Your task to perform on an android device: What's the weather going to be this weekend? Image 0: 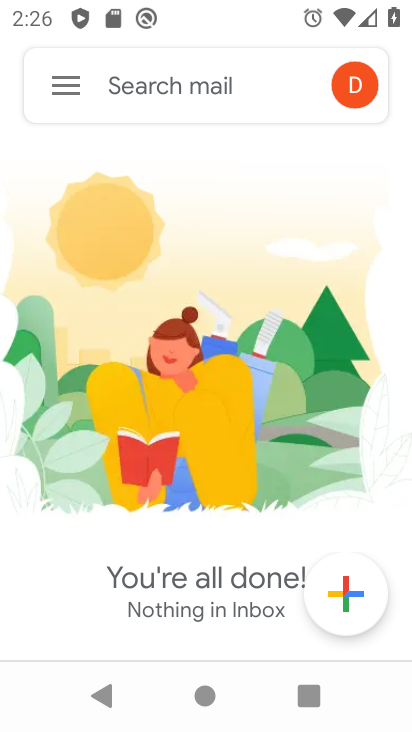
Step 0: press home button
Your task to perform on an android device: What's the weather going to be this weekend? Image 1: 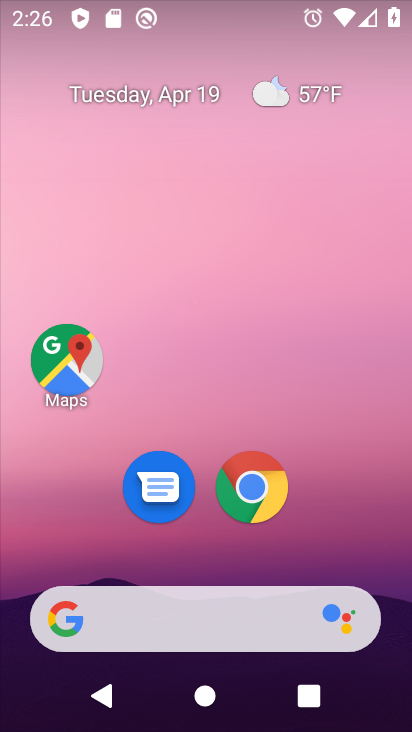
Step 1: click (55, 615)
Your task to perform on an android device: What's the weather going to be this weekend? Image 2: 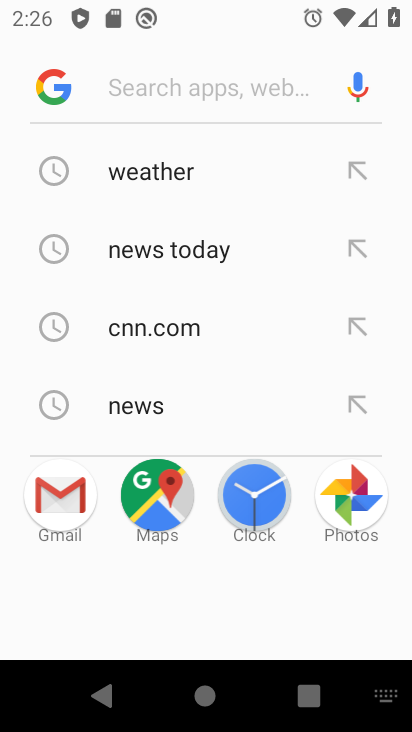
Step 2: click (55, 101)
Your task to perform on an android device: What's the weather going to be this weekend? Image 3: 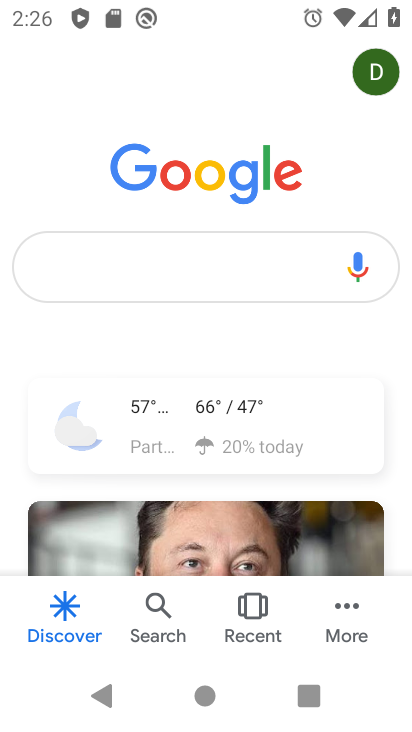
Step 3: click (204, 444)
Your task to perform on an android device: What's the weather going to be this weekend? Image 4: 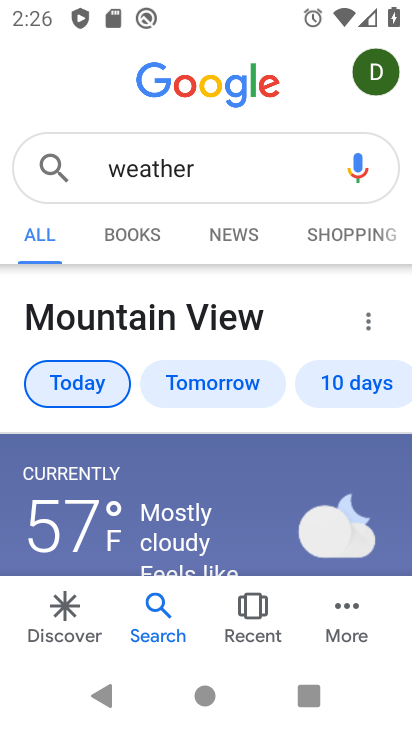
Step 4: click (374, 375)
Your task to perform on an android device: What's the weather going to be this weekend? Image 5: 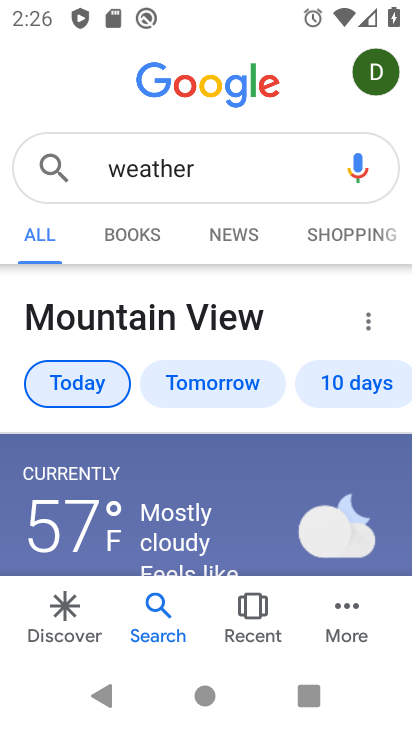
Step 5: click (374, 375)
Your task to perform on an android device: What's the weather going to be this weekend? Image 6: 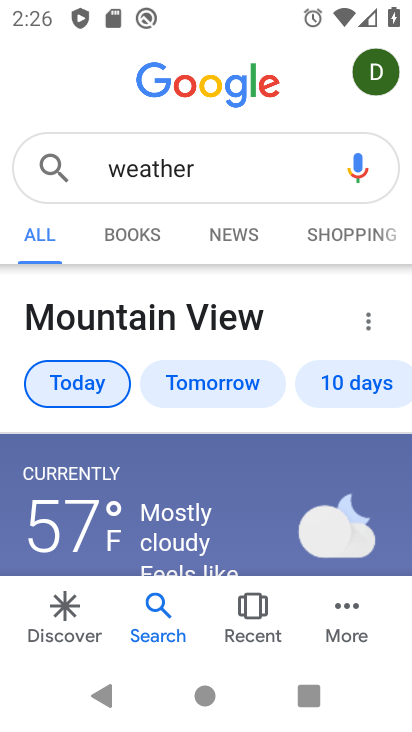
Step 6: click (348, 377)
Your task to perform on an android device: What's the weather going to be this weekend? Image 7: 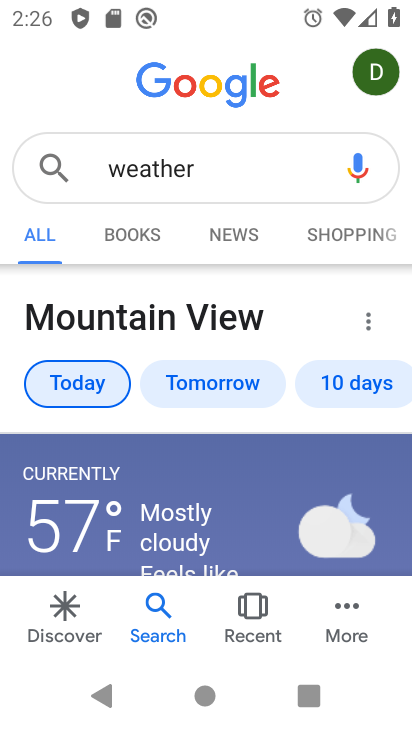
Step 7: click (342, 398)
Your task to perform on an android device: What's the weather going to be this weekend? Image 8: 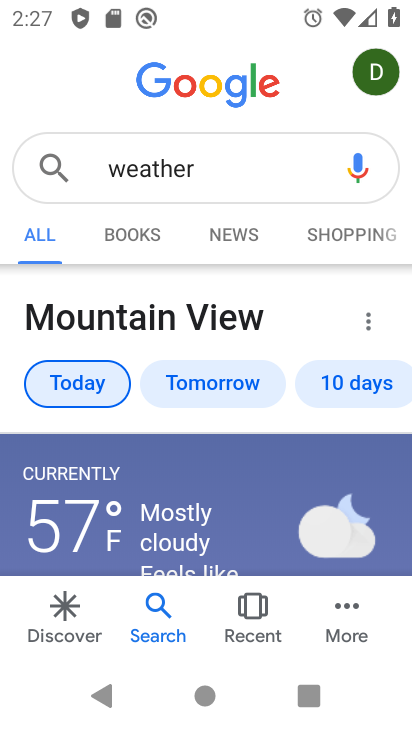
Step 8: click (351, 395)
Your task to perform on an android device: What's the weather going to be this weekend? Image 9: 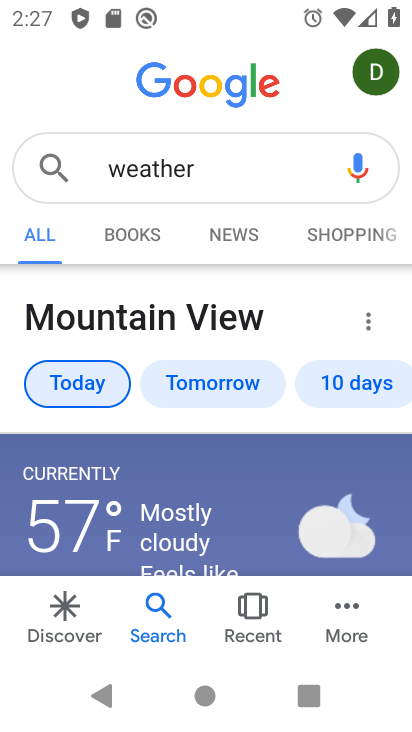
Step 9: click (351, 395)
Your task to perform on an android device: What's the weather going to be this weekend? Image 10: 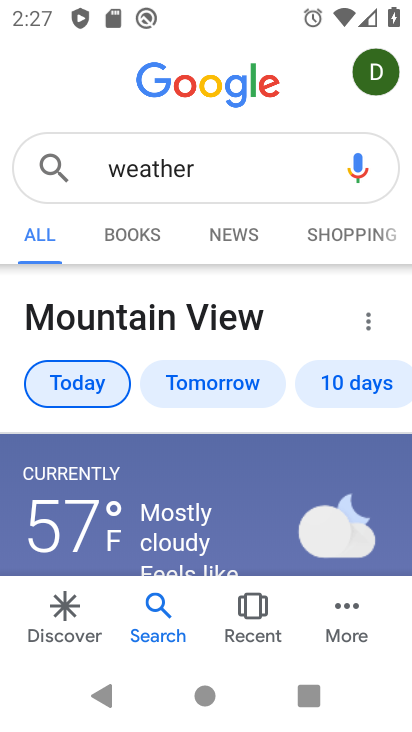
Step 10: click (351, 395)
Your task to perform on an android device: What's the weather going to be this weekend? Image 11: 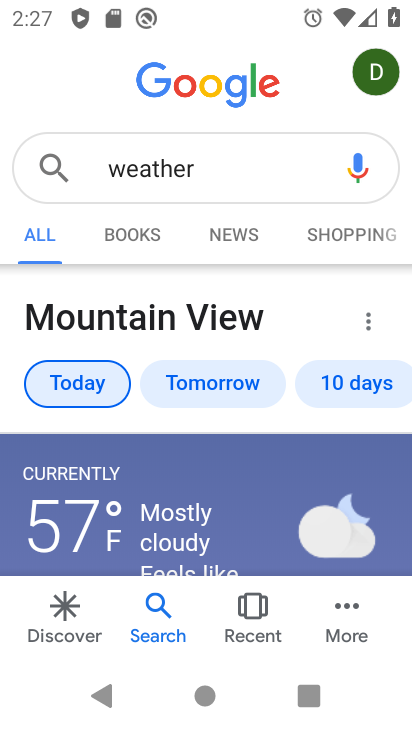
Step 11: click (351, 395)
Your task to perform on an android device: What's the weather going to be this weekend? Image 12: 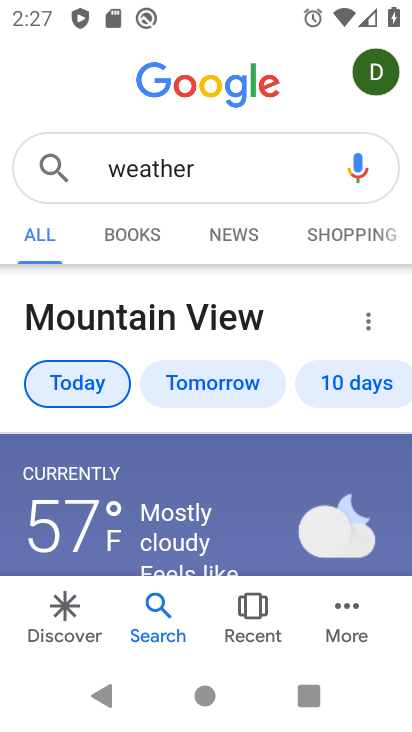
Step 12: click (351, 395)
Your task to perform on an android device: What's the weather going to be this weekend? Image 13: 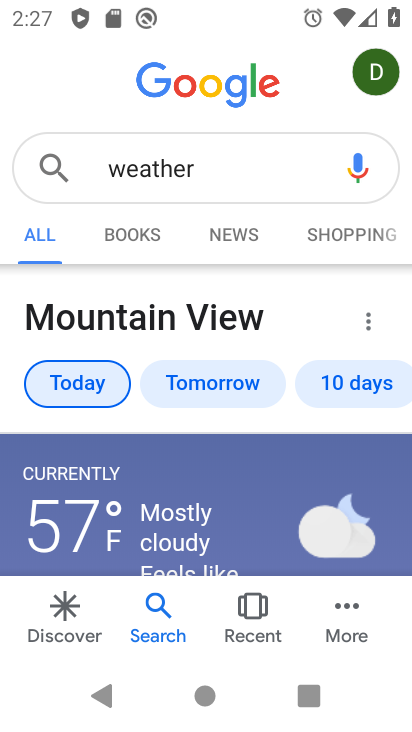
Step 13: click (352, 384)
Your task to perform on an android device: What's the weather going to be this weekend? Image 14: 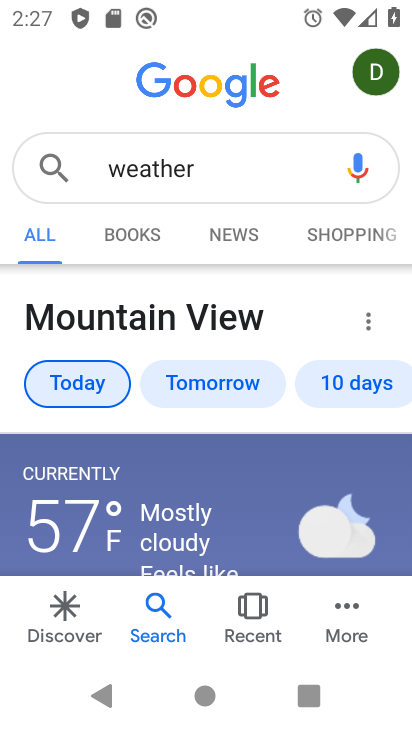
Step 14: click (352, 384)
Your task to perform on an android device: What's the weather going to be this weekend? Image 15: 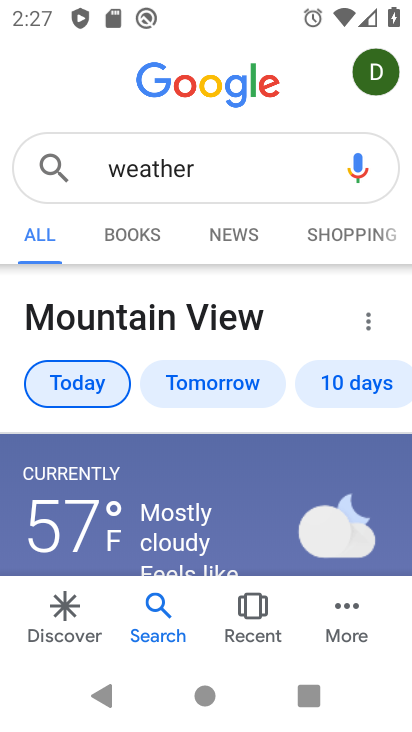
Step 15: click (352, 384)
Your task to perform on an android device: What's the weather going to be this weekend? Image 16: 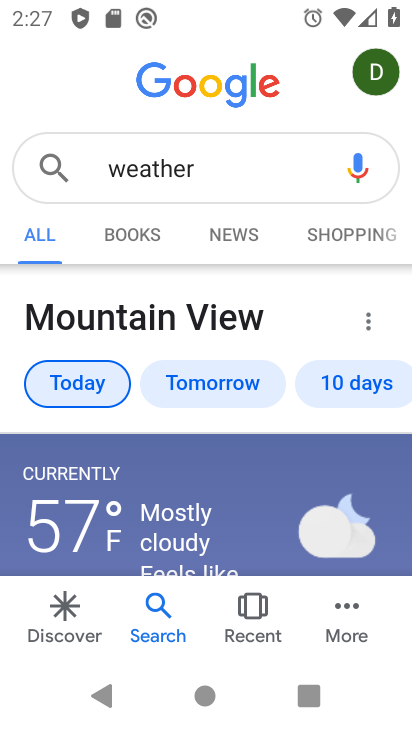
Step 16: click (352, 384)
Your task to perform on an android device: What's the weather going to be this weekend? Image 17: 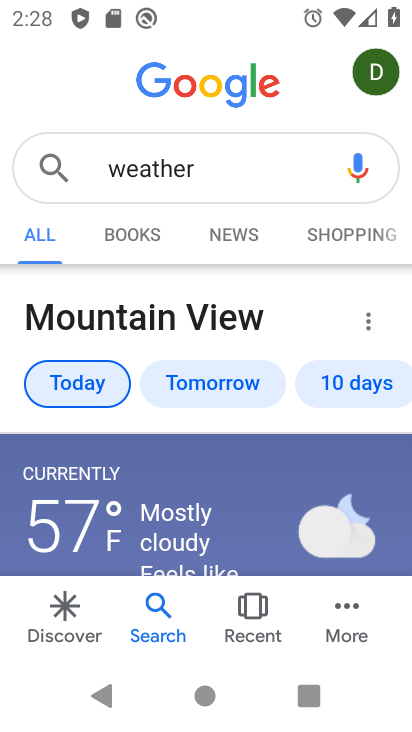
Step 17: click (352, 384)
Your task to perform on an android device: What's the weather going to be this weekend? Image 18: 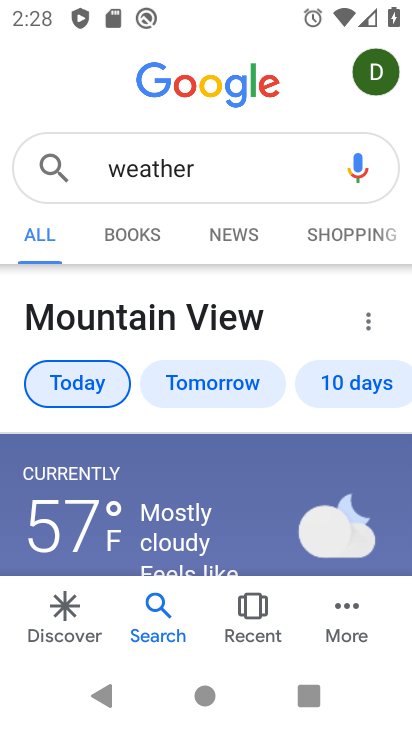
Step 18: task complete